Your task to perform on an android device: toggle show notifications on the lock screen Image 0: 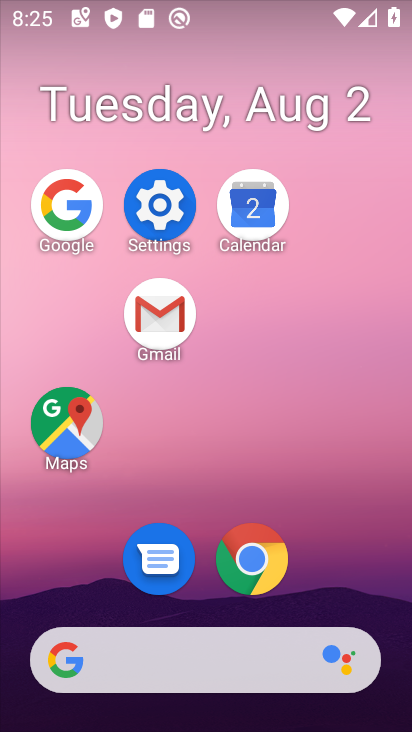
Step 0: click (170, 218)
Your task to perform on an android device: toggle show notifications on the lock screen Image 1: 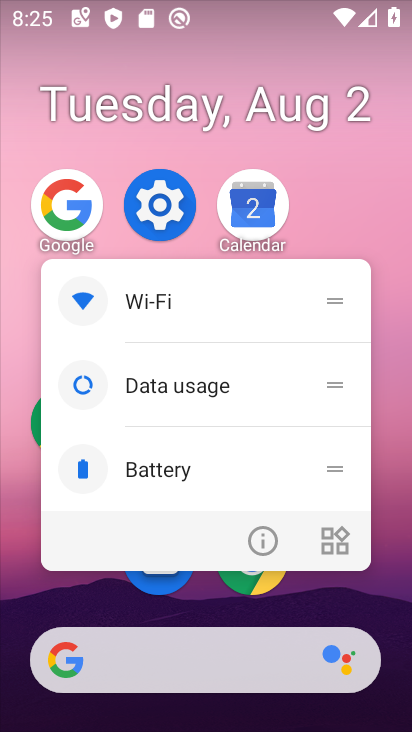
Step 1: click (170, 218)
Your task to perform on an android device: toggle show notifications on the lock screen Image 2: 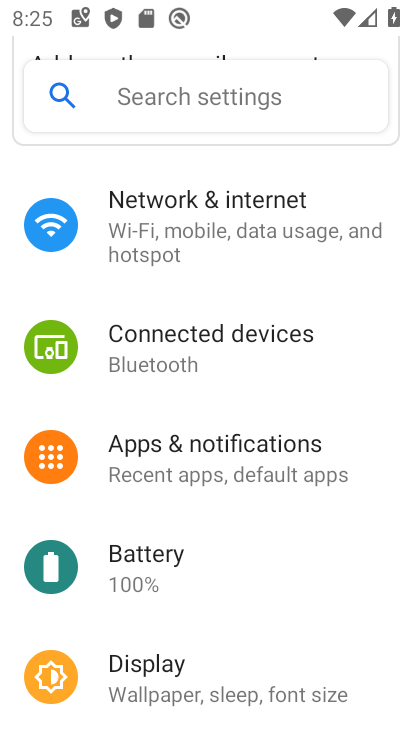
Step 2: click (273, 439)
Your task to perform on an android device: toggle show notifications on the lock screen Image 3: 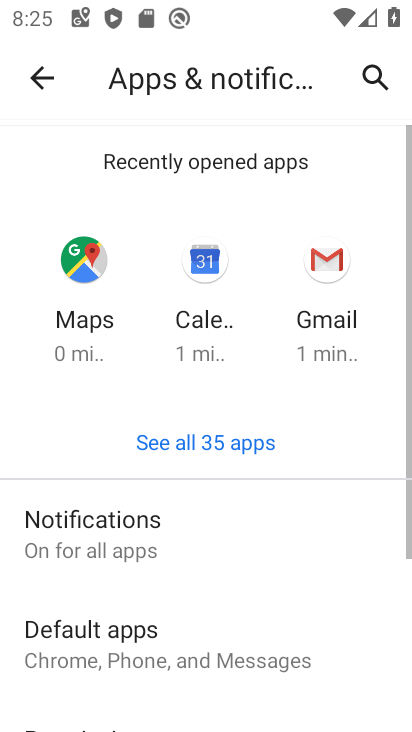
Step 3: click (205, 531)
Your task to perform on an android device: toggle show notifications on the lock screen Image 4: 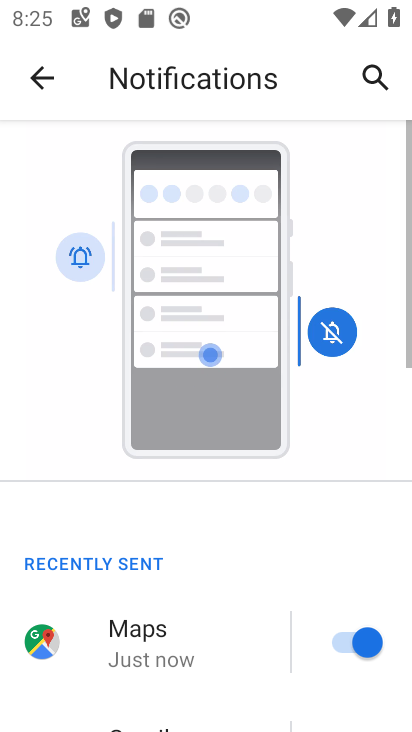
Step 4: drag from (205, 531) to (234, 226)
Your task to perform on an android device: toggle show notifications on the lock screen Image 5: 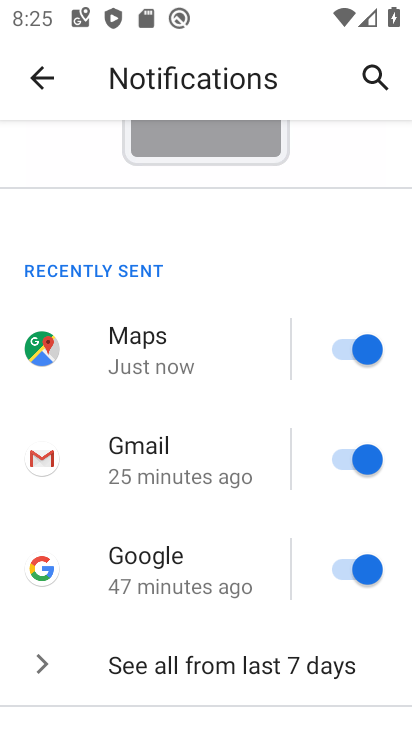
Step 5: drag from (241, 522) to (255, 132)
Your task to perform on an android device: toggle show notifications on the lock screen Image 6: 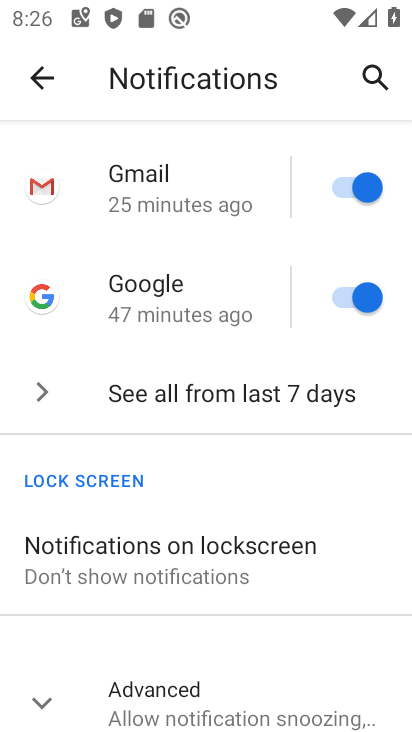
Step 6: click (256, 596)
Your task to perform on an android device: toggle show notifications on the lock screen Image 7: 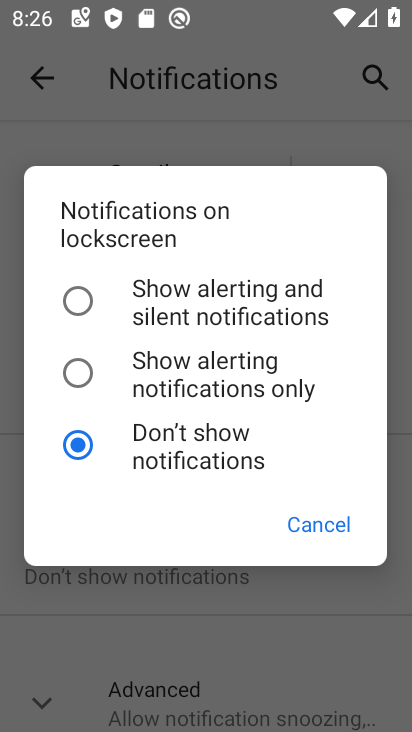
Step 7: click (144, 303)
Your task to perform on an android device: toggle show notifications on the lock screen Image 8: 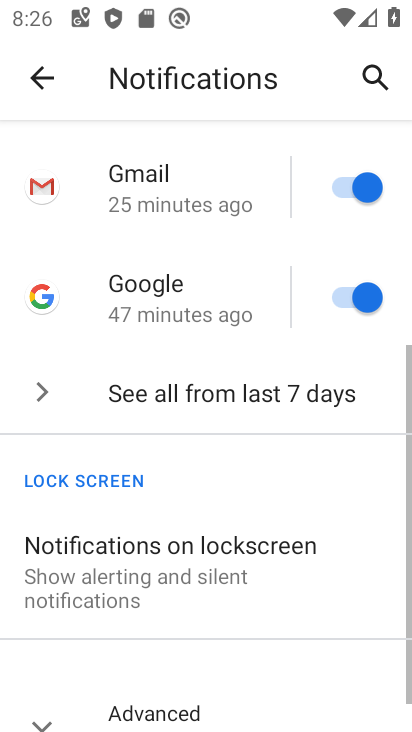
Step 8: task complete